Your task to perform on an android device: Go to internet settings Image 0: 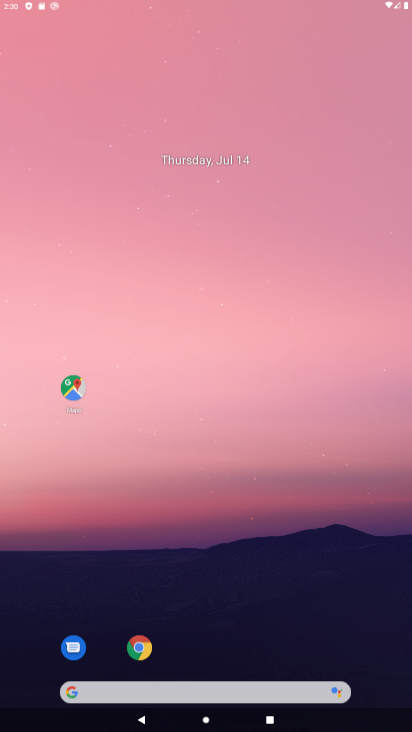
Step 0: drag from (238, 357) to (260, 171)
Your task to perform on an android device: Go to internet settings Image 1: 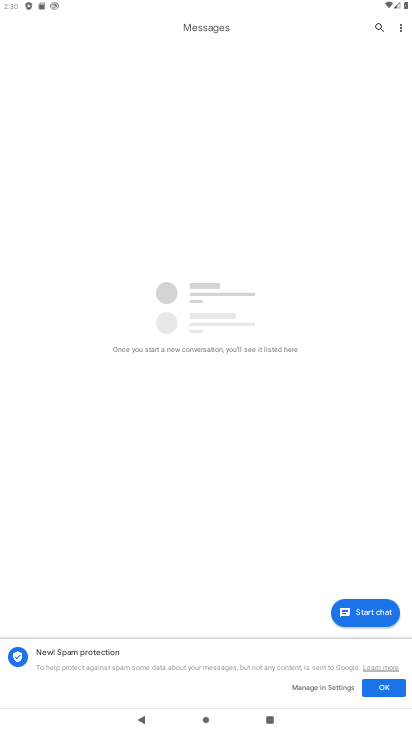
Step 1: press home button
Your task to perform on an android device: Go to internet settings Image 2: 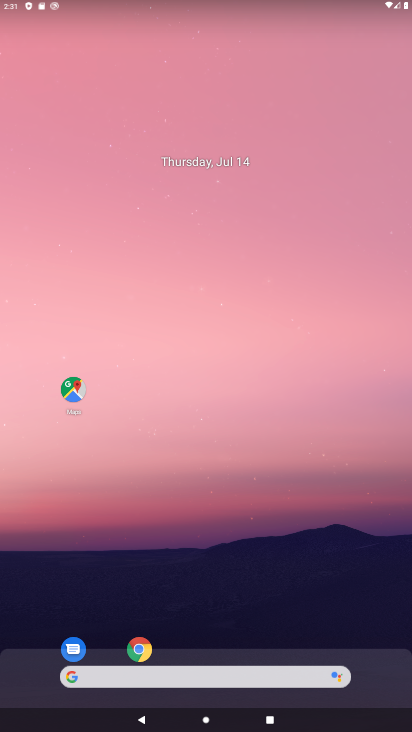
Step 2: drag from (255, 611) to (287, 21)
Your task to perform on an android device: Go to internet settings Image 3: 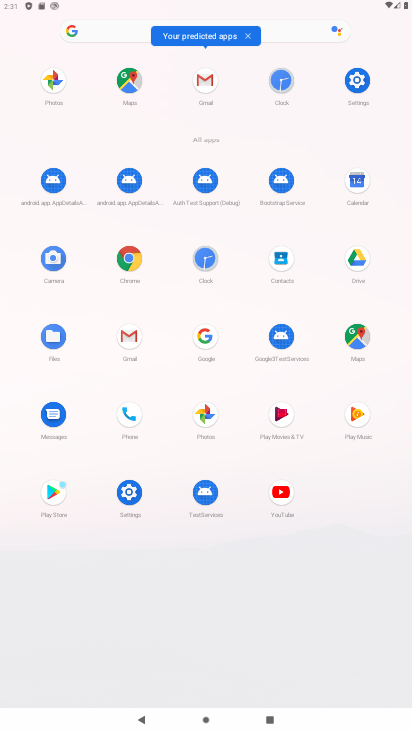
Step 3: click (127, 500)
Your task to perform on an android device: Go to internet settings Image 4: 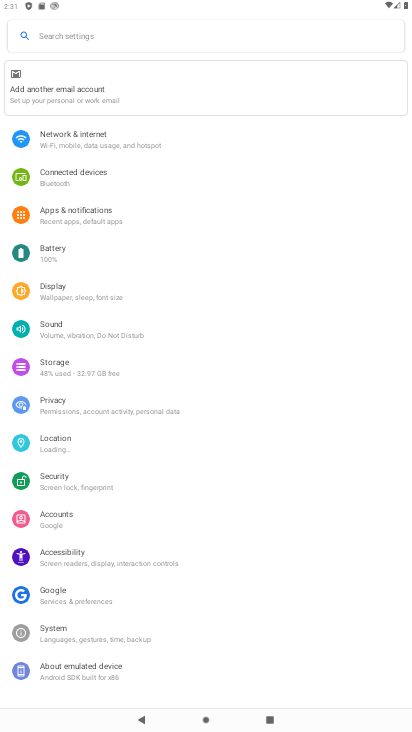
Step 4: click (108, 135)
Your task to perform on an android device: Go to internet settings Image 5: 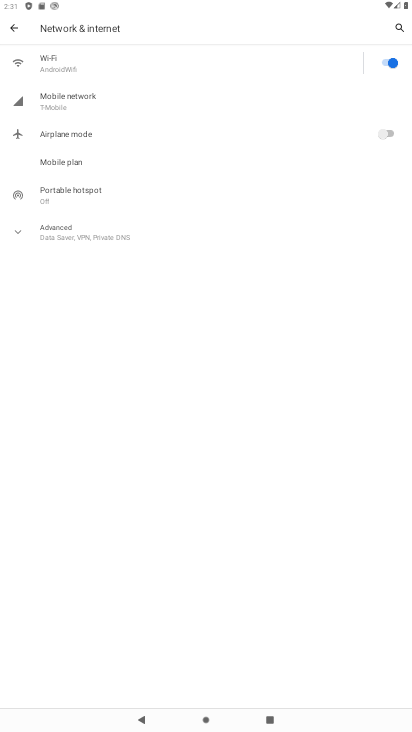
Step 5: task complete